Your task to perform on an android device: Open Yahoo.com Image 0: 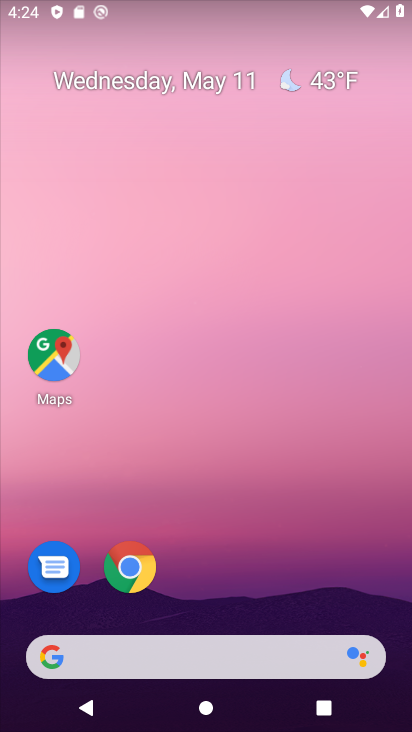
Step 0: click (125, 578)
Your task to perform on an android device: Open Yahoo.com Image 1: 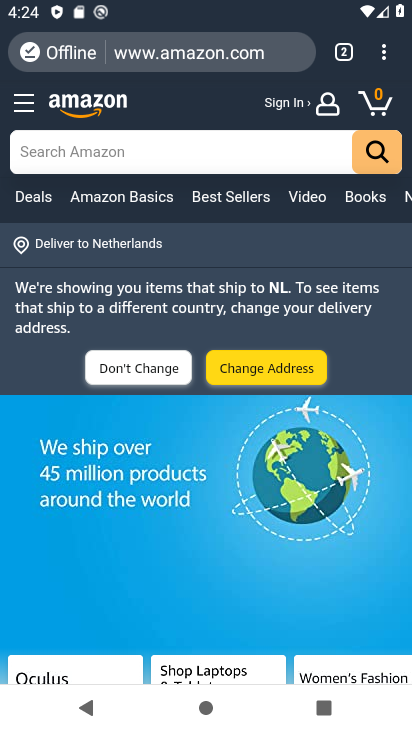
Step 1: click (347, 46)
Your task to perform on an android device: Open Yahoo.com Image 2: 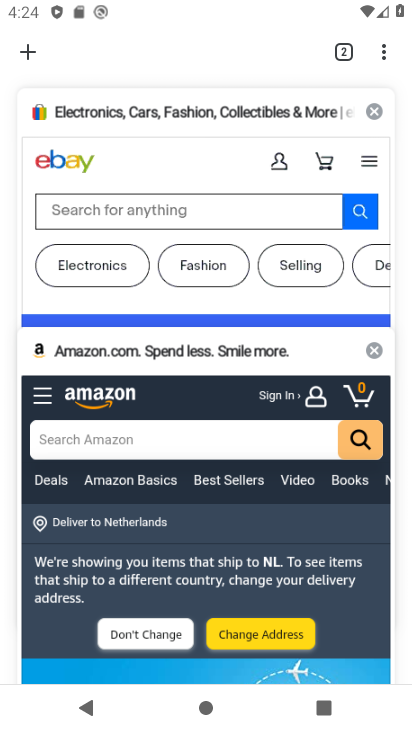
Step 2: click (27, 49)
Your task to perform on an android device: Open Yahoo.com Image 3: 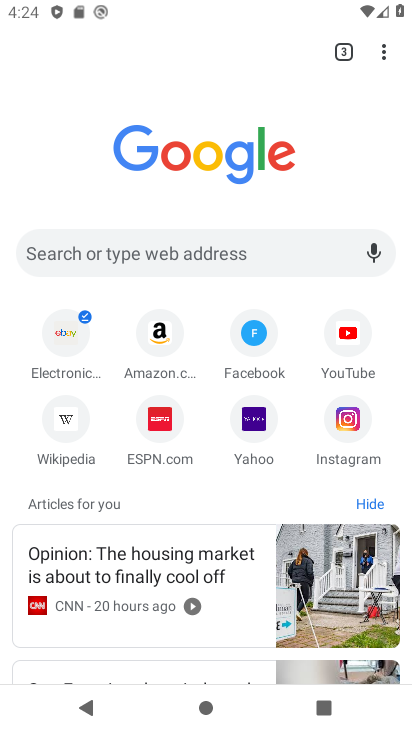
Step 3: click (246, 426)
Your task to perform on an android device: Open Yahoo.com Image 4: 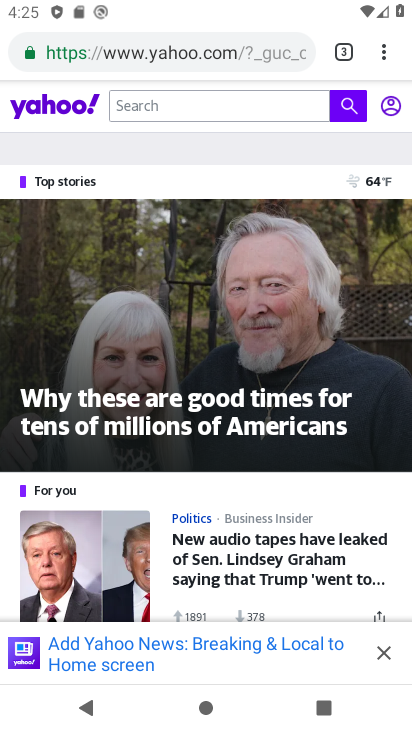
Step 4: task complete